Your task to perform on an android device: Open calendar and show me the first week of next month Image 0: 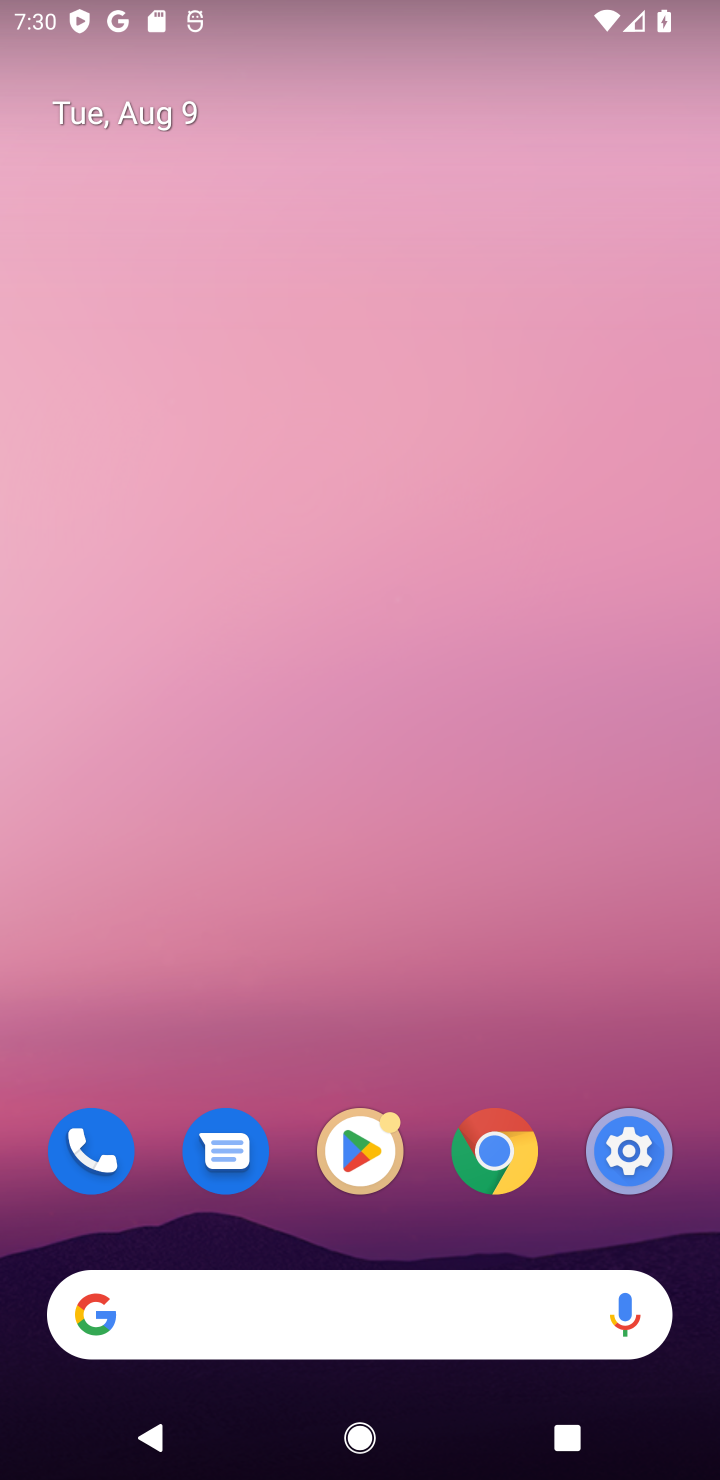
Step 0: drag from (287, 1180) to (254, 64)
Your task to perform on an android device: Open calendar and show me the first week of next month Image 1: 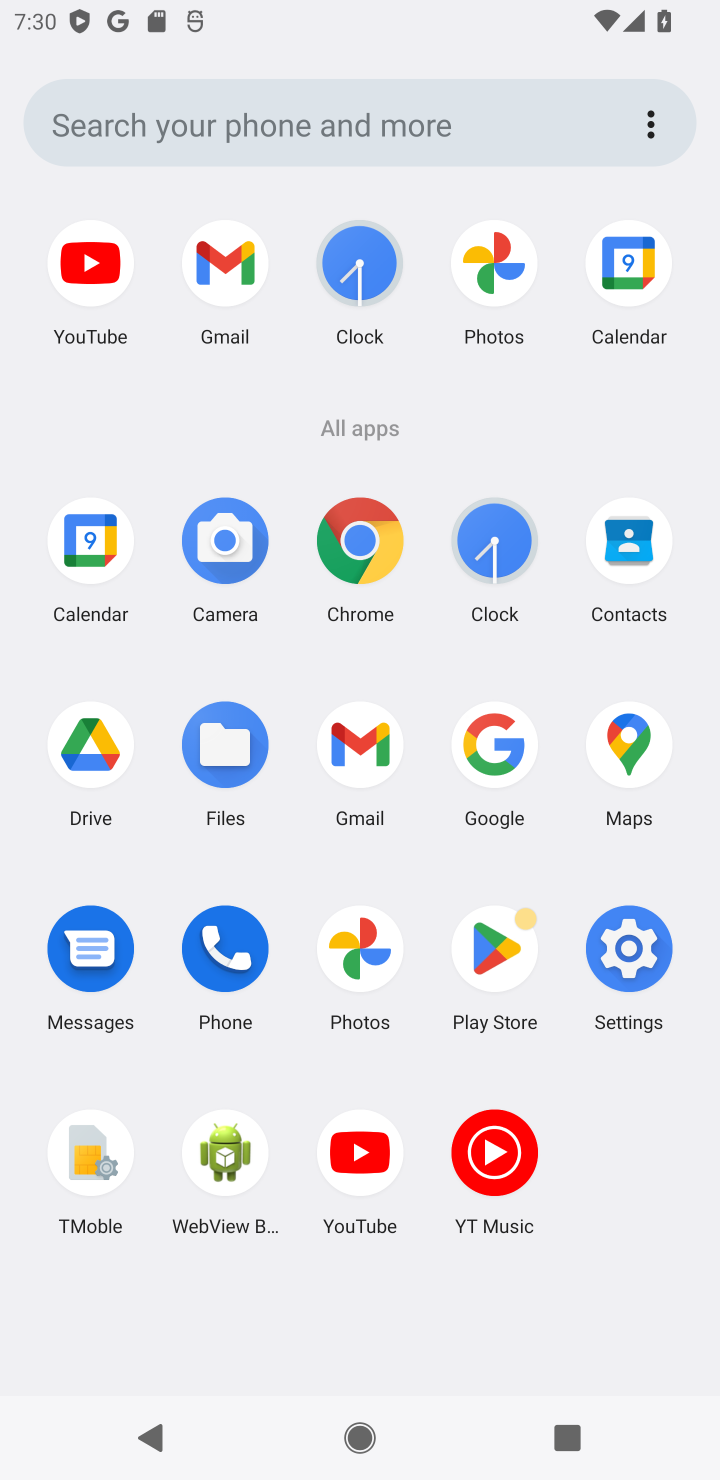
Step 1: click (611, 267)
Your task to perform on an android device: Open calendar and show me the first week of next month Image 2: 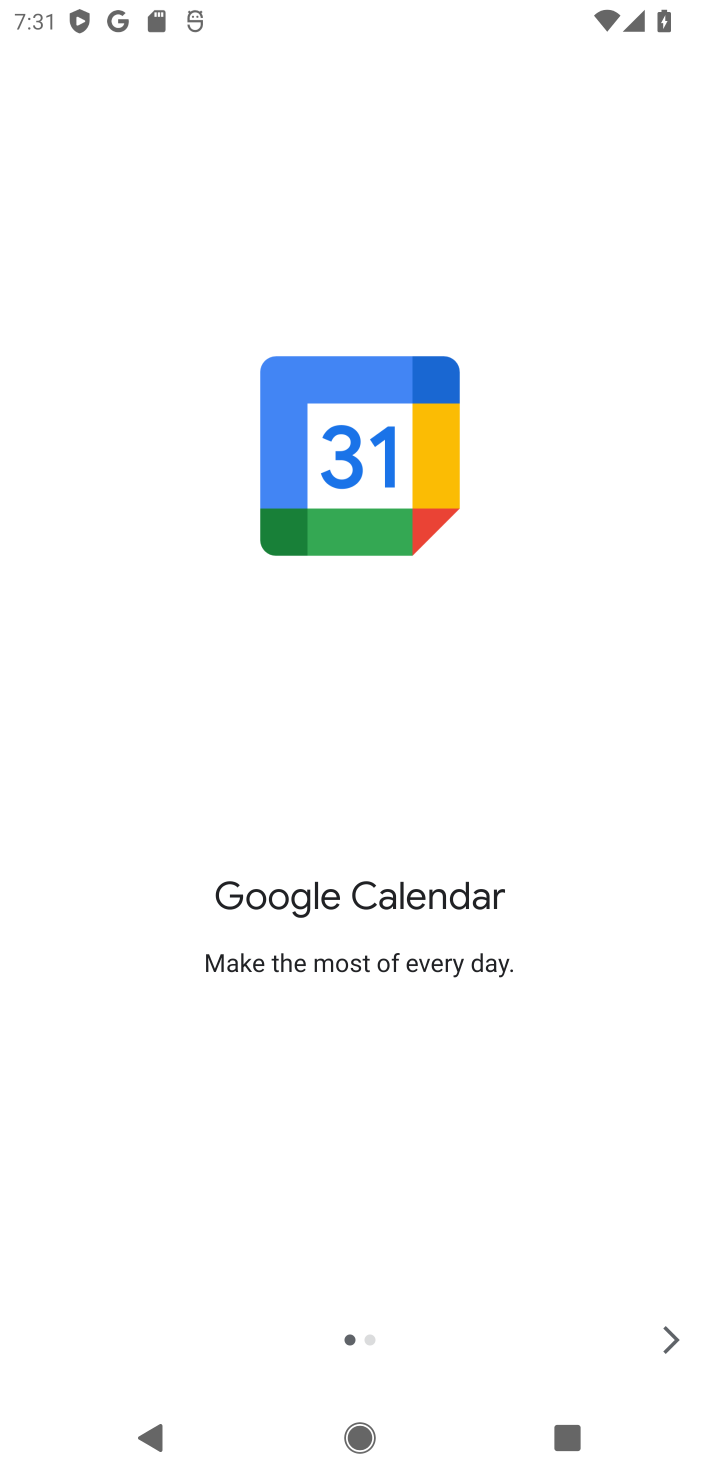
Step 2: click (672, 1337)
Your task to perform on an android device: Open calendar and show me the first week of next month Image 3: 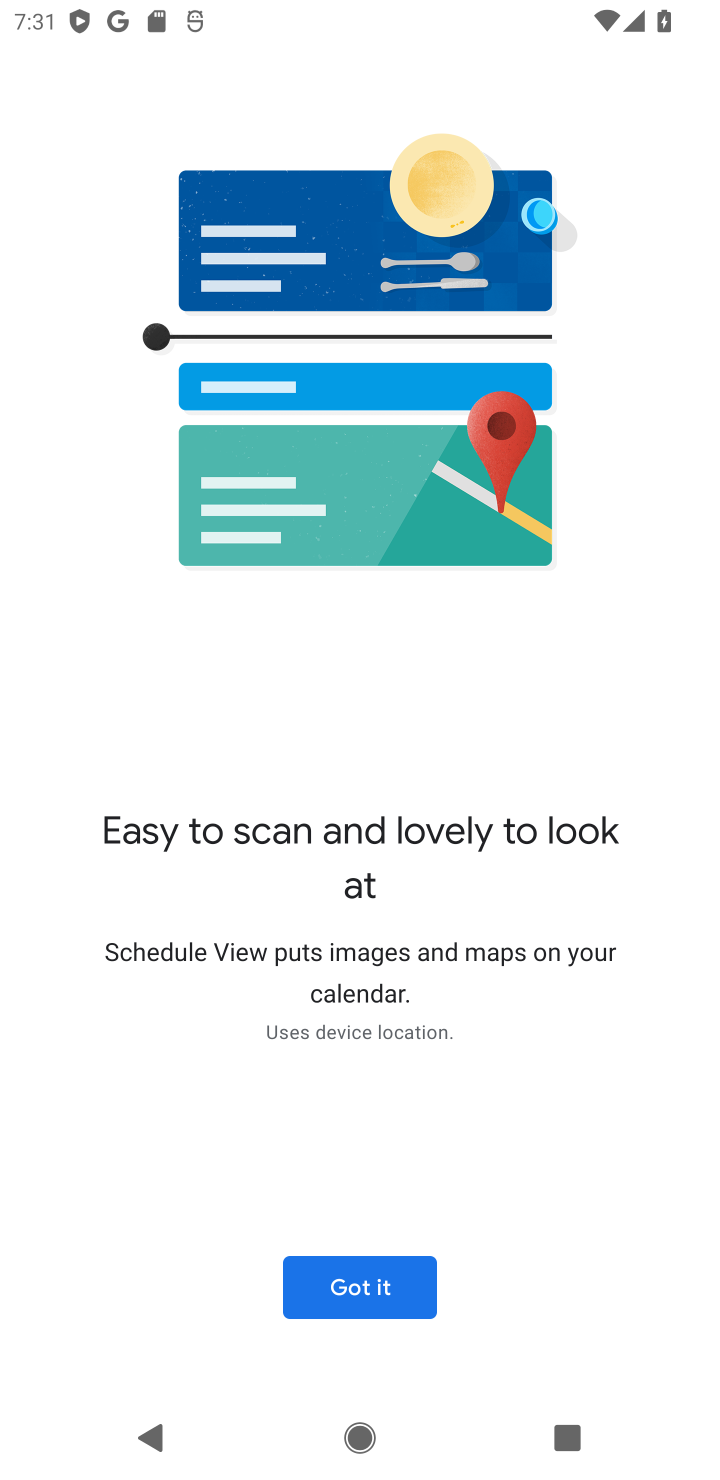
Step 3: click (345, 1300)
Your task to perform on an android device: Open calendar and show me the first week of next month Image 4: 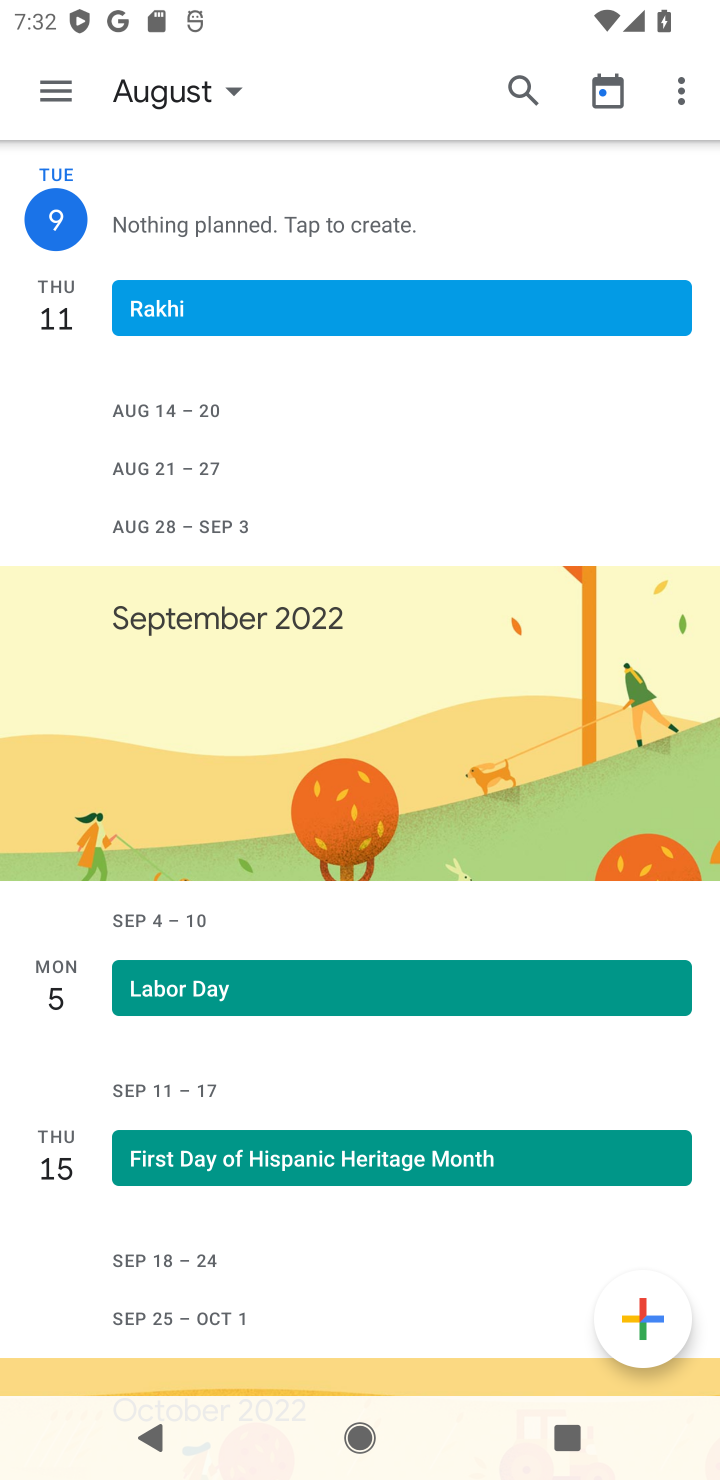
Step 4: click (54, 71)
Your task to perform on an android device: Open calendar and show me the first week of next month Image 5: 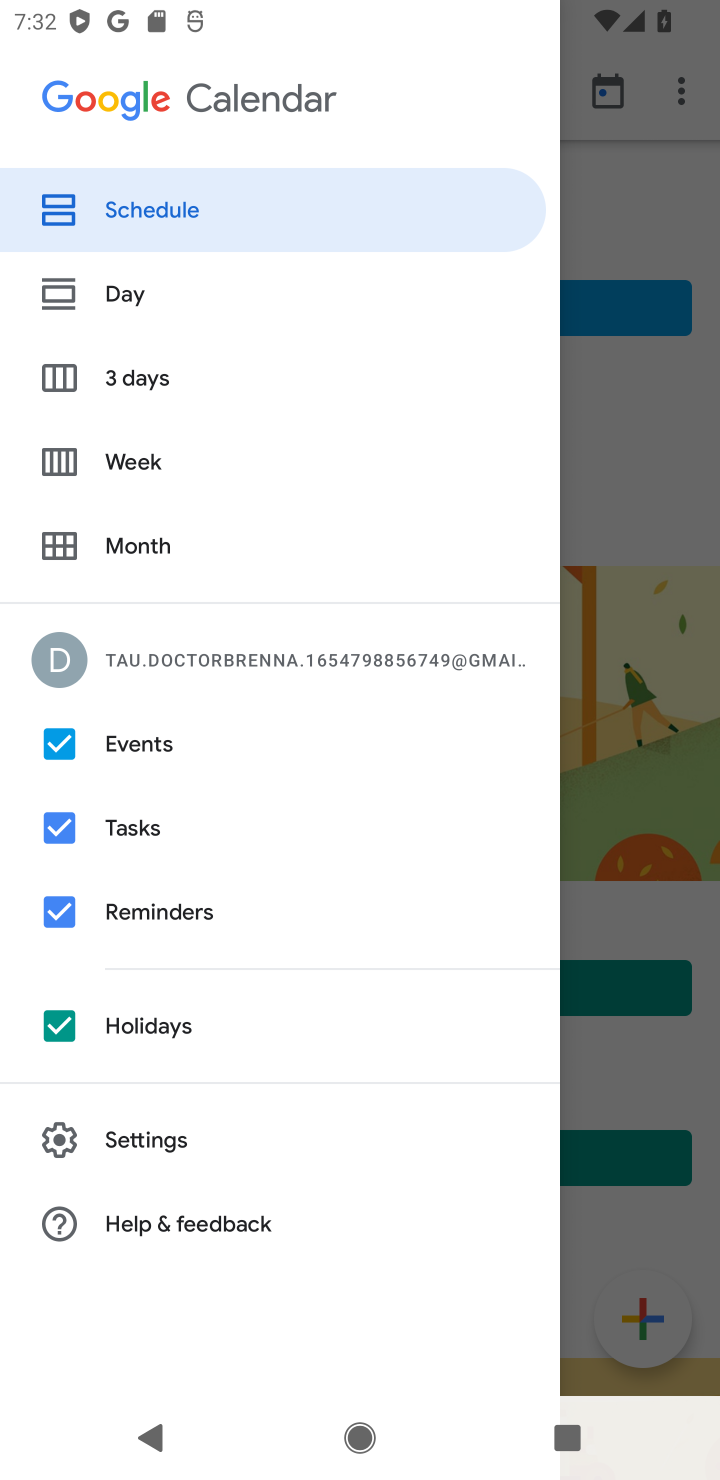
Step 5: click (153, 463)
Your task to perform on an android device: Open calendar and show me the first week of next month Image 6: 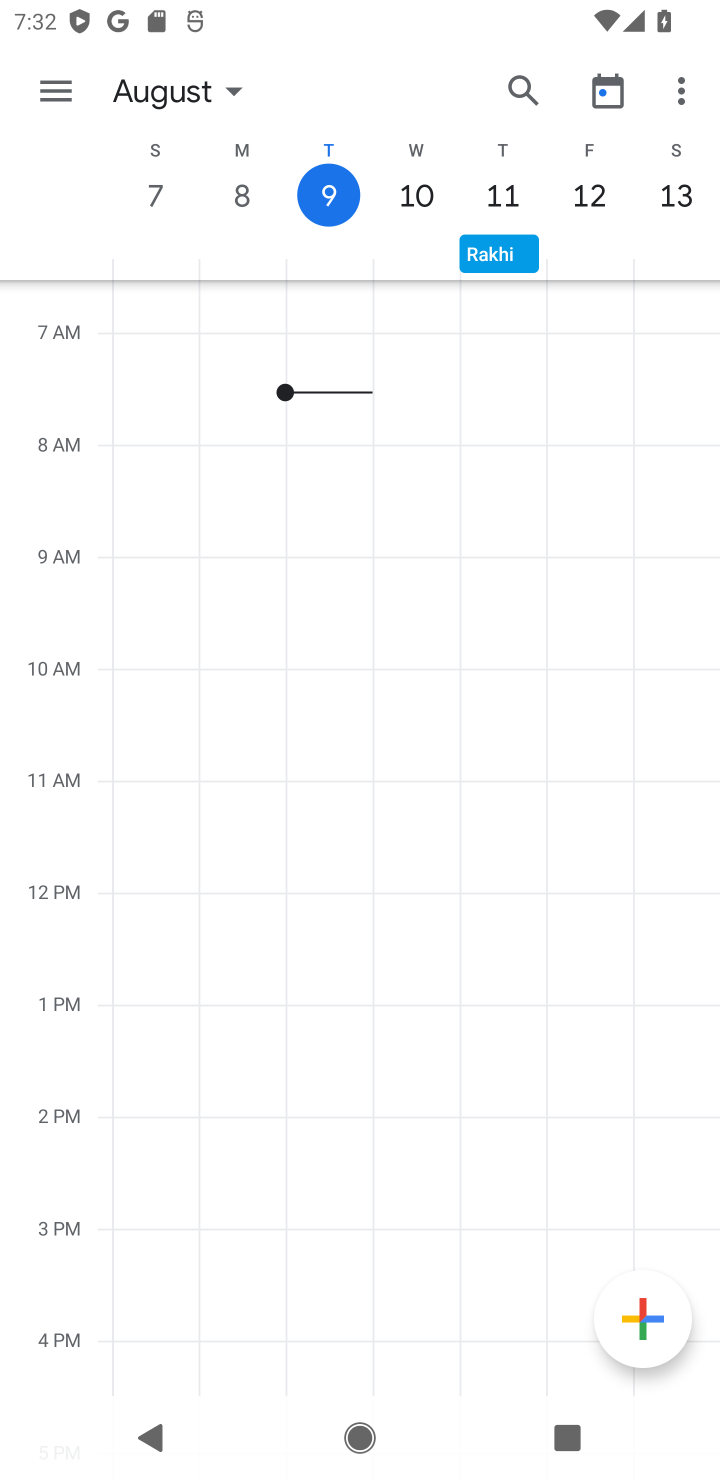
Step 6: click (243, 90)
Your task to perform on an android device: Open calendar and show me the first week of next month Image 7: 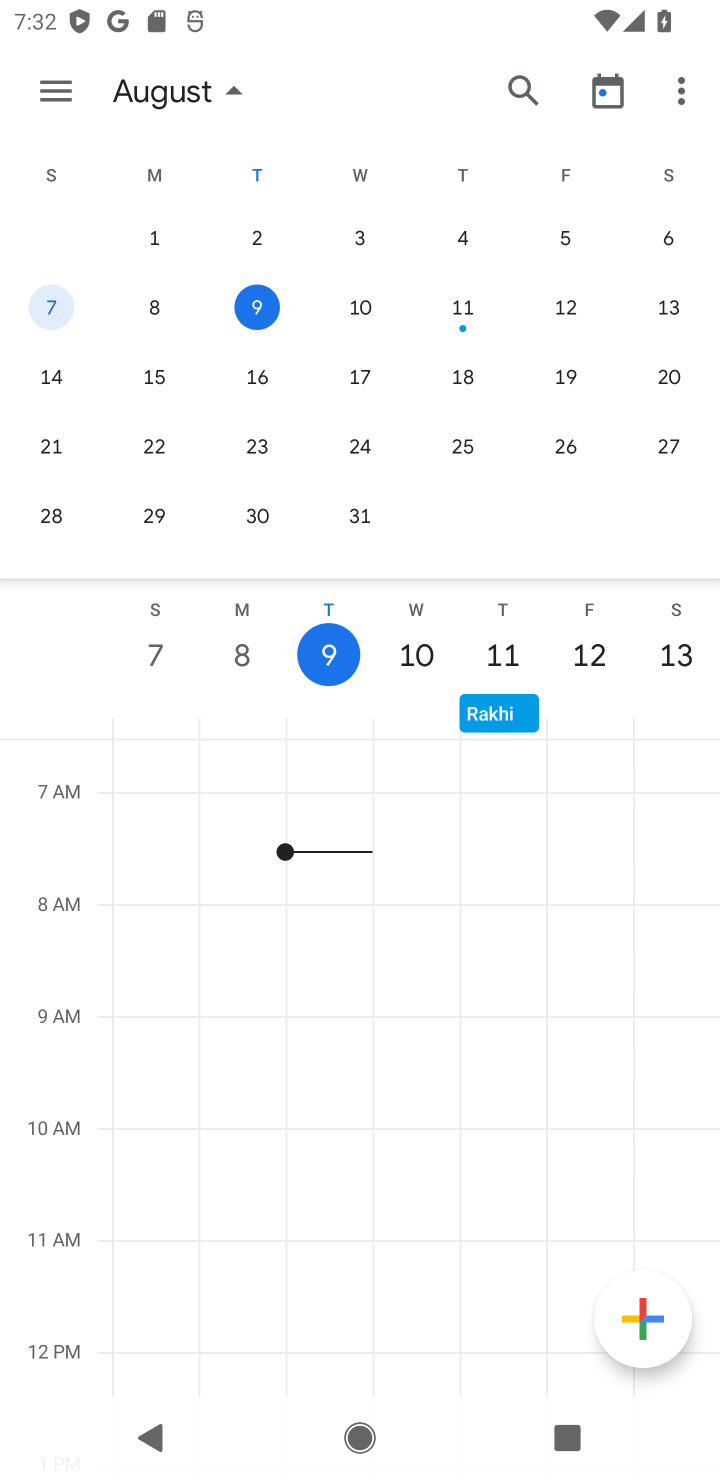
Step 7: task complete